Your task to perform on an android device: Empty the shopping cart on amazon.com. Image 0: 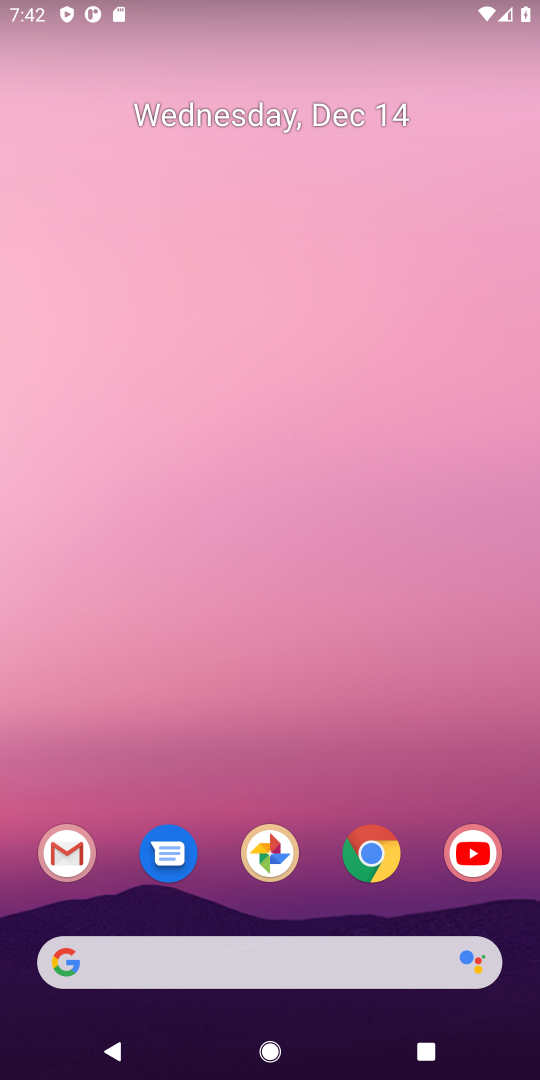
Step 0: click (379, 871)
Your task to perform on an android device: Empty the shopping cart on amazon.com. Image 1: 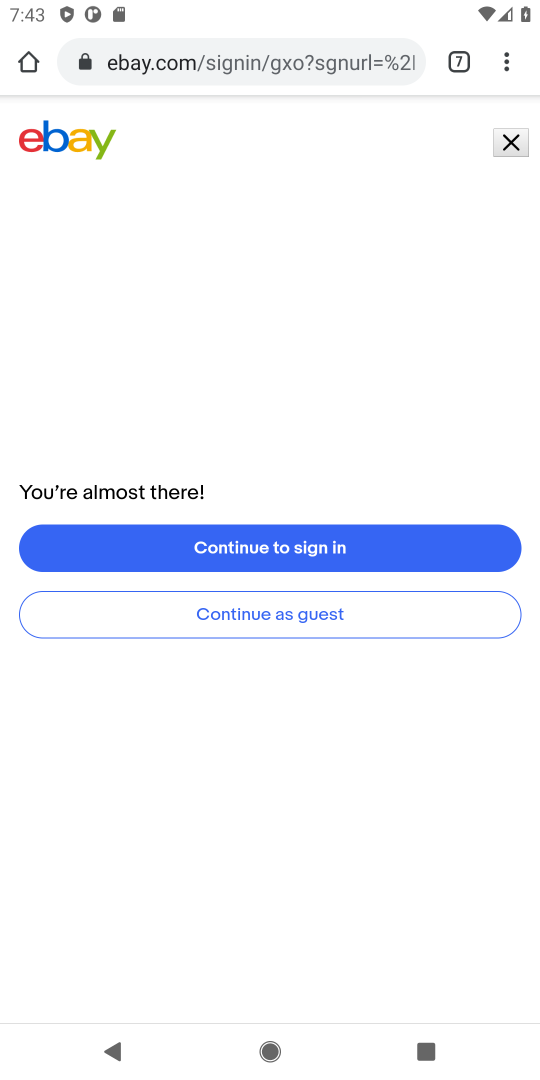
Step 1: click (456, 64)
Your task to perform on an android device: Empty the shopping cart on amazon.com. Image 2: 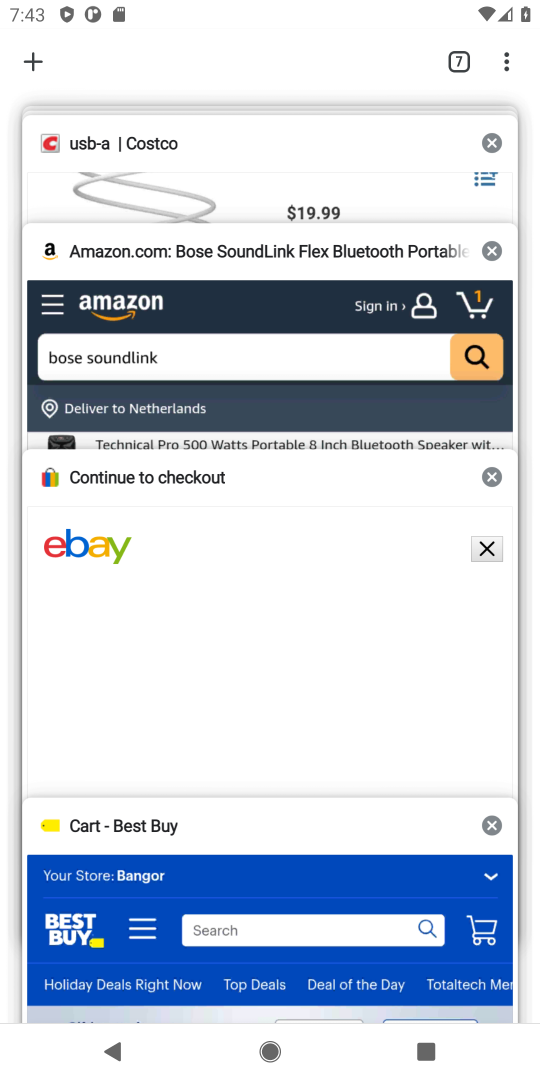
Step 2: click (271, 329)
Your task to perform on an android device: Empty the shopping cart on amazon.com. Image 3: 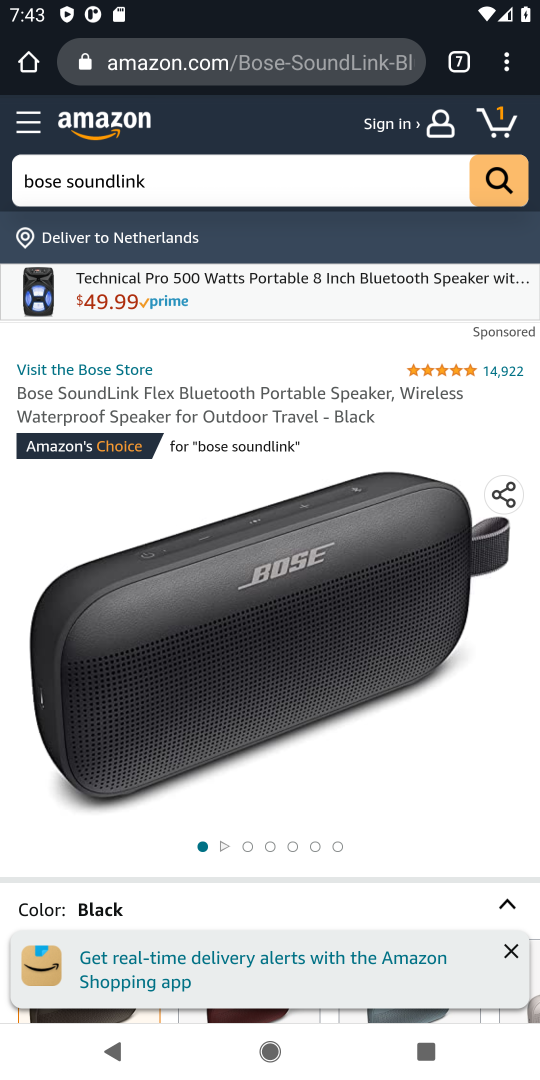
Step 3: click (491, 124)
Your task to perform on an android device: Empty the shopping cart on amazon.com. Image 4: 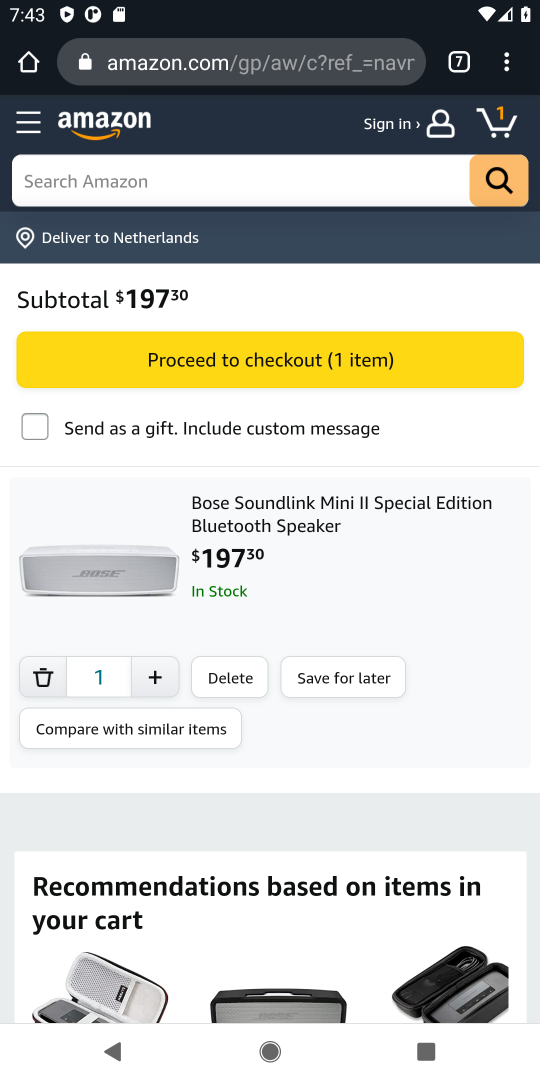
Step 4: click (225, 679)
Your task to perform on an android device: Empty the shopping cart on amazon.com. Image 5: 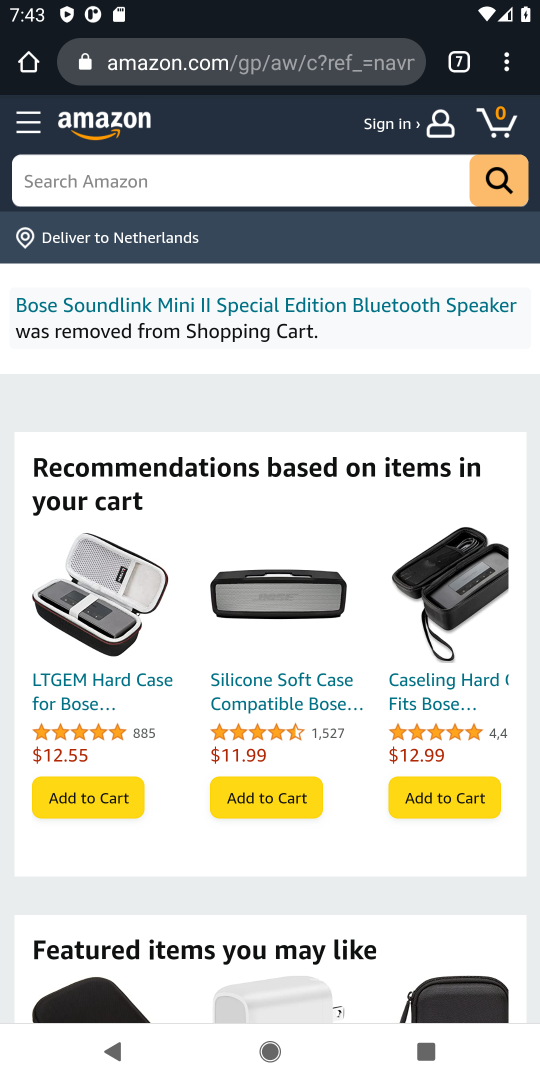
Step 5: task complete